Your task to perform on an android device: Open calendar and show me the second week of next month Image 0: 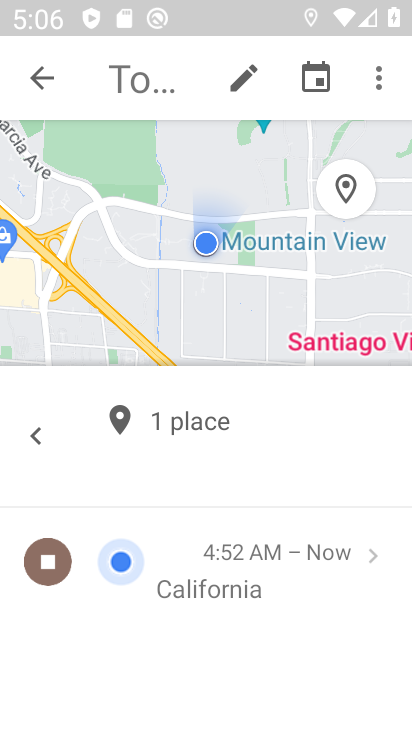
Step 0: press home button
Your task to perform on an android device: Open calendar and show me the second week of next month Image 1: 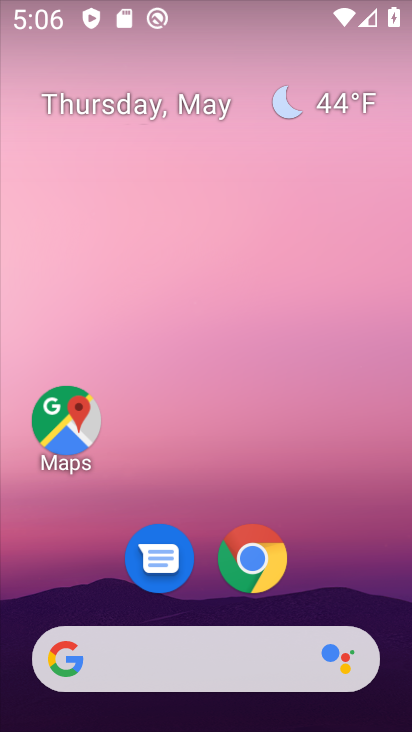
Step 1: drag from (377, 578) to (280, 4)
Your task to perform on an android device: Open calendar and show me the second week of next month Image 2: 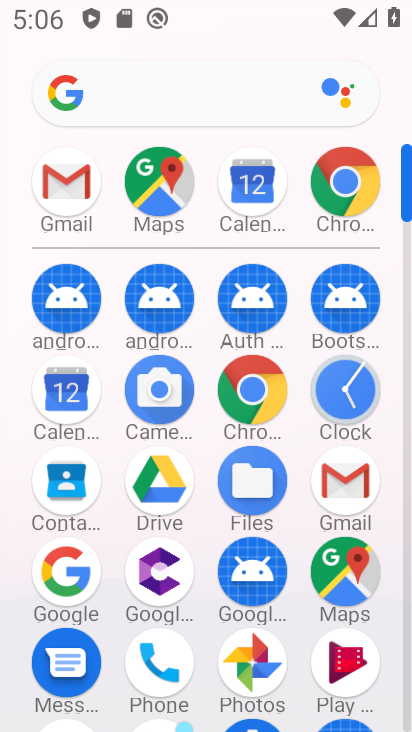
Step 2: drag from (1, 494) to (12, 275)
Your task to perform on an android device: Open calendar and show me the second week of next month Image 3: 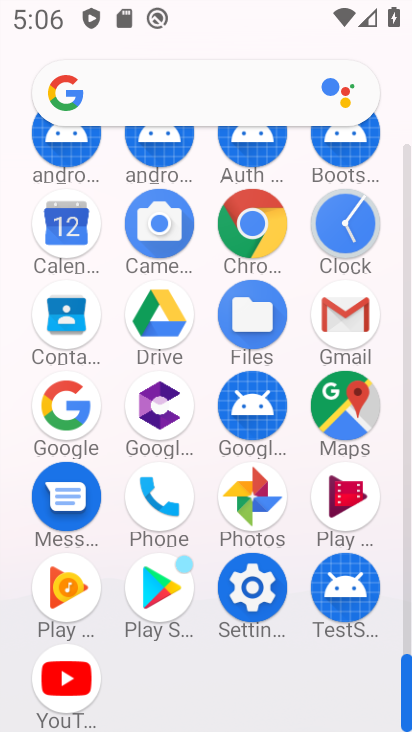
Step 3: click (66, 224)
Your task to perform on an android device: Open calendar and show me the second week of next month Image 4: 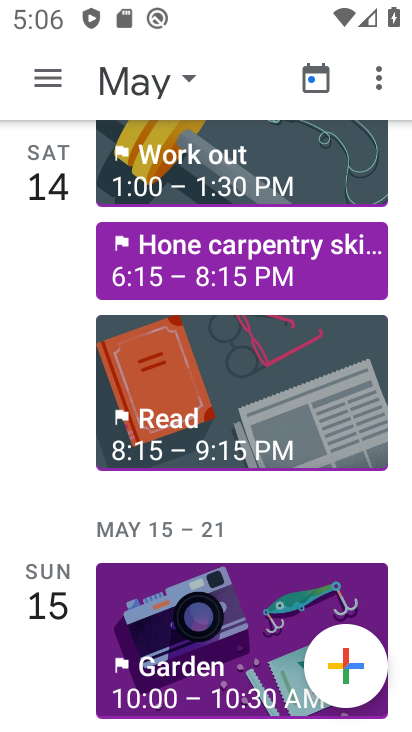
Step 4: click (128, 62)
Your task to perform on an android device: Open calendar and show me the second week of next month Image 5: 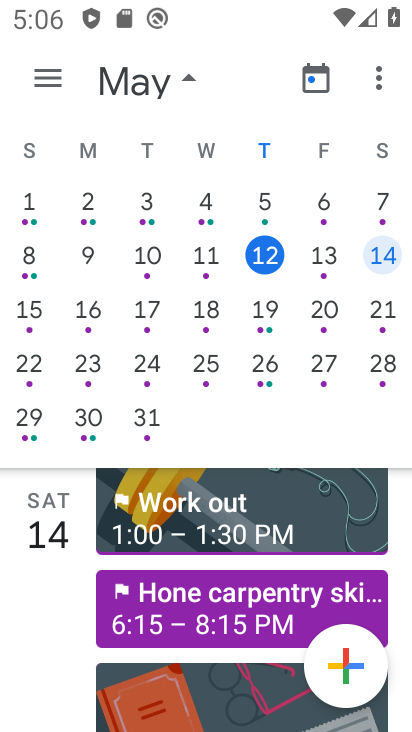
Step 5: drag from (396, 328) to (0, 309)
Your task to perform on an android device: Open calendar and show me the second week of next month Image 6: 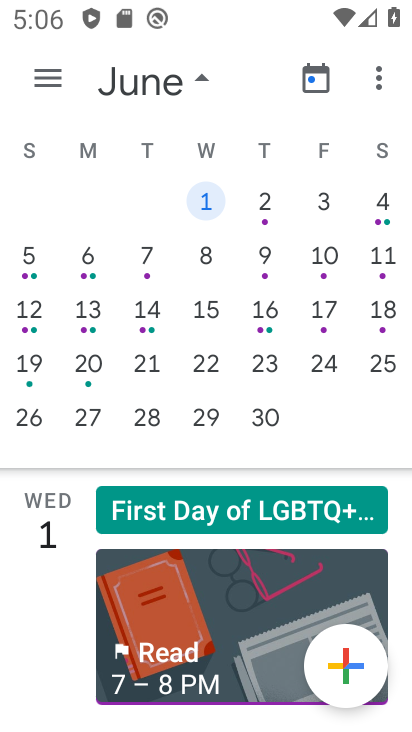
Step 6: click (27, 264)
Your task to perform on an android device: Open calendar and show me the second week of next month Image 7: 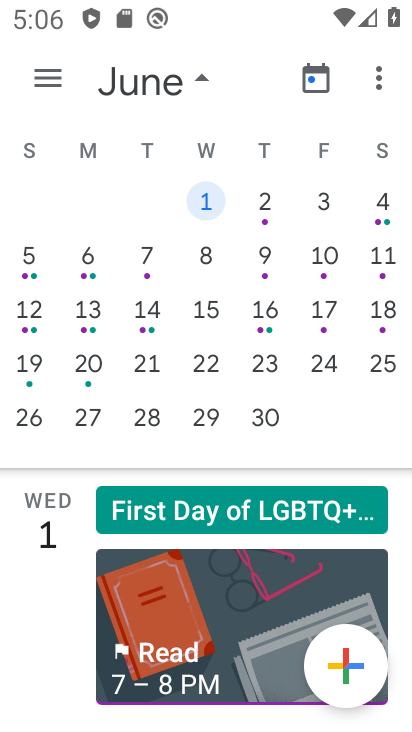
Step 7: click (26, 256)
Your task to perform on an android device: Open calendar and show me the second week of next month Image 8: 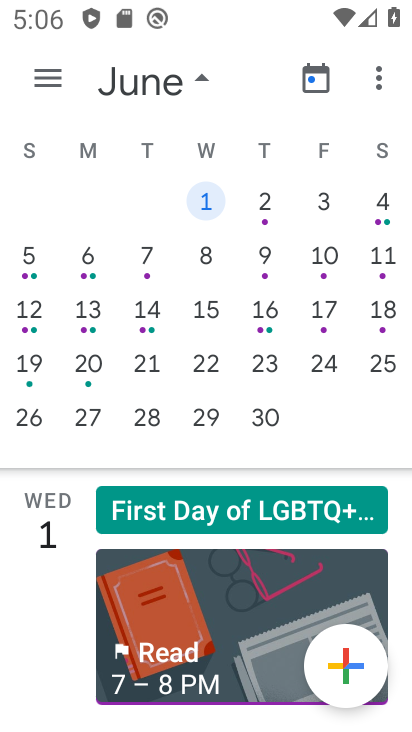
Step 8: click (28, 247)
Your task to perform on an android device: Open calendar and show me the second week of next month Image 9: 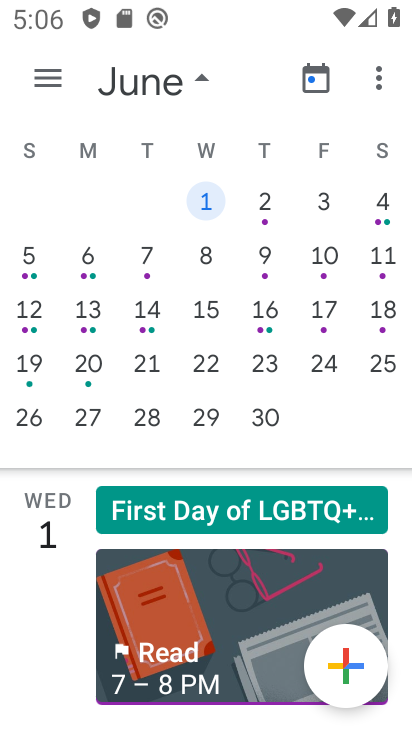
Step 9: click (29, 247)
Your task to perform on an android device: Open calendar and show me the second week of next month Image 10: 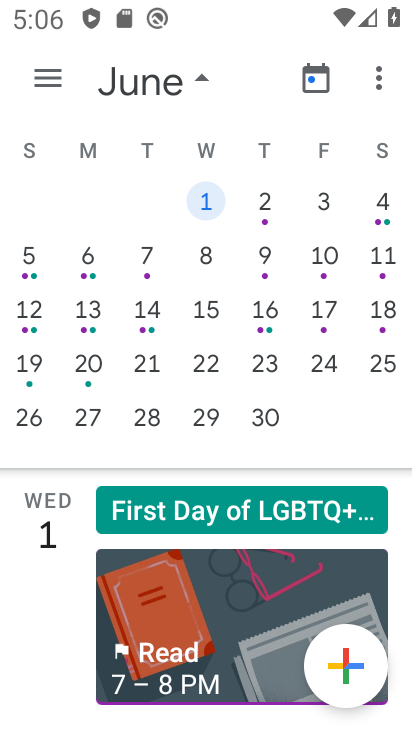
Step 10: click (35, 259)
Your task to perform on an android device: Open calendar and show me the second week of next month Image 11: 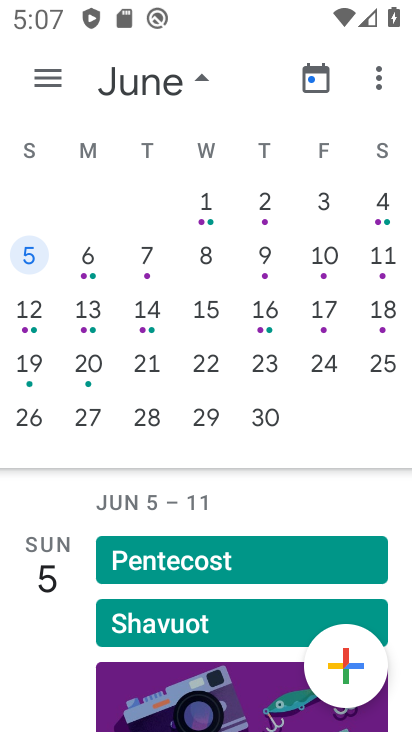
Step 11: click (31, 64)
Your task to perform on an android device: Open calendar and show me the second week of next month Image 12: 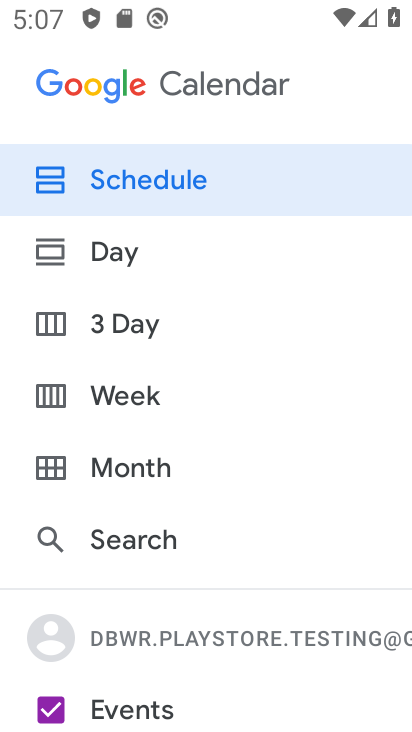
Step 12: click (142, 407)
Your task to perform on an android device: Open calendar and show me the second week of next month Image 13: 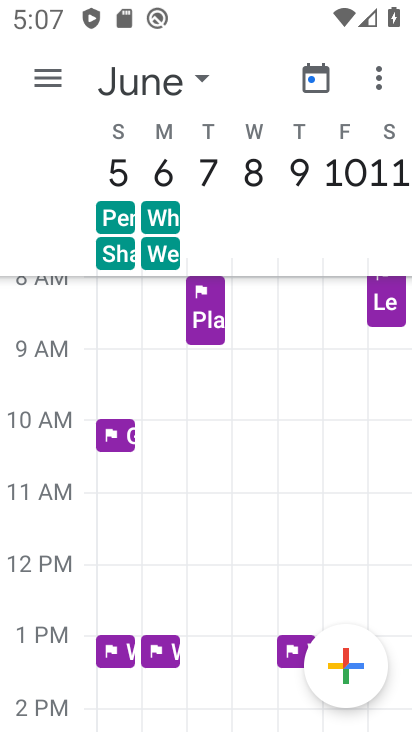
Step 13: task complete